Your task to perform on an android device: toggle wifi Image 0: 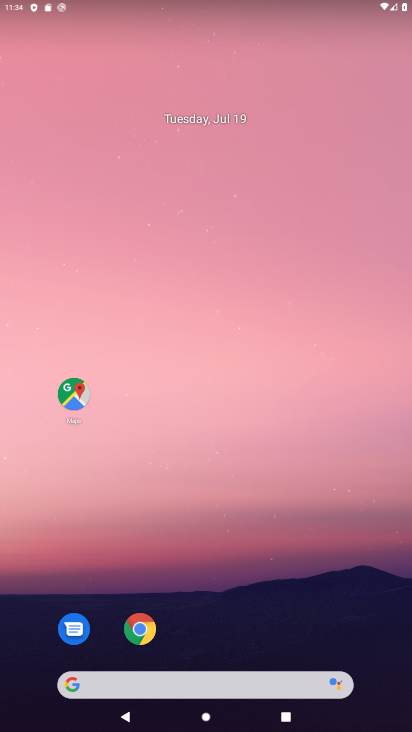
Step 0: drag from (179, 596) to (208, 68)
Your task to perform on an android device: toggle wifi Image 1: 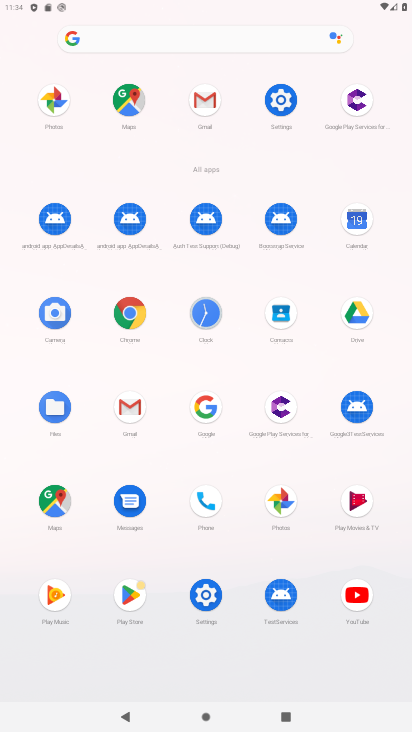
Step 1: click (280, 99)
Your task to perform on an android device: toggle wifi Image 2: 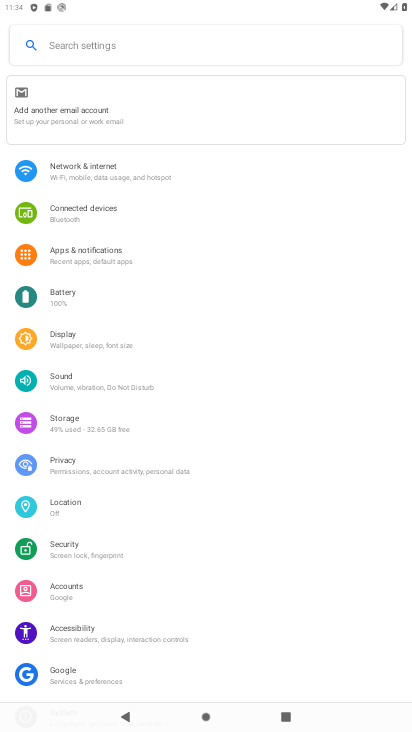
Step 2: click (138, 181)
Your task to perform on an android device: toggle wifi Image 3: 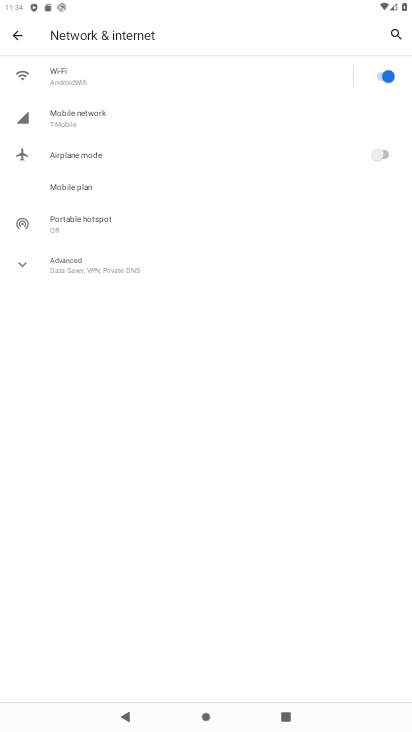
Step 3: click (382, 68)
Your task to perform on an android device: toggle wifi Image 4: 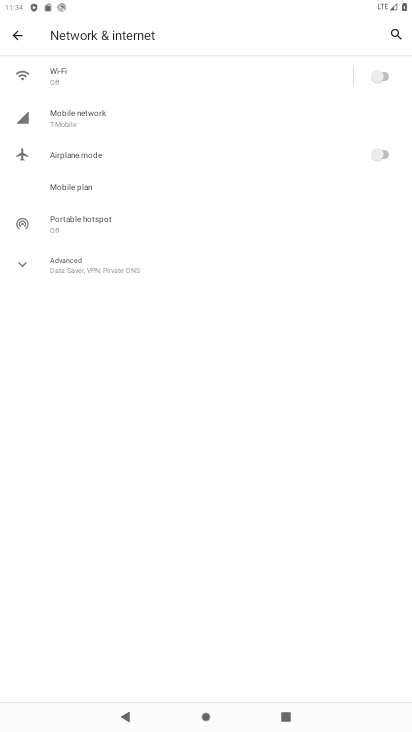
Step 4: task complete